Your task to perform on an android device: check out phone information Image 0: 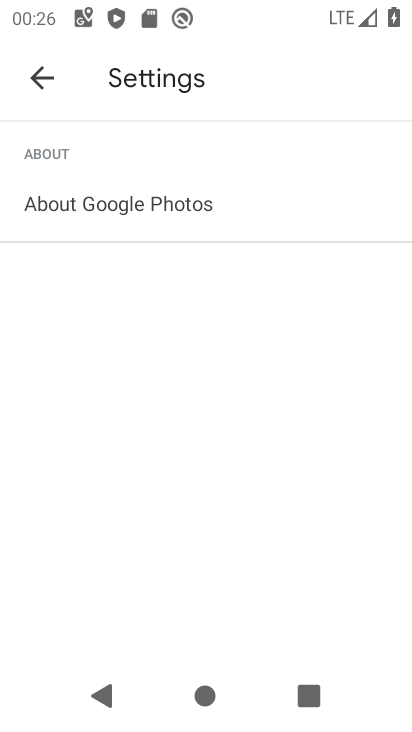
Step 0: press home button
Your task to perform on an android device: check out phone information Image 1: 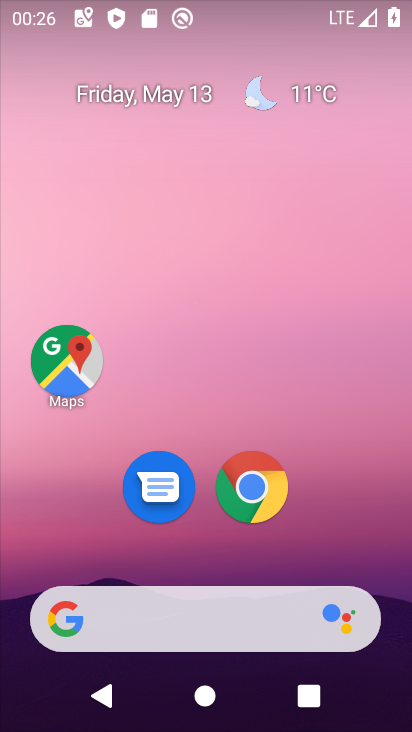
Step 1: drag from (203, 526) to (156, 73)
Your task to perform on an android device: check out phone information Image 2: 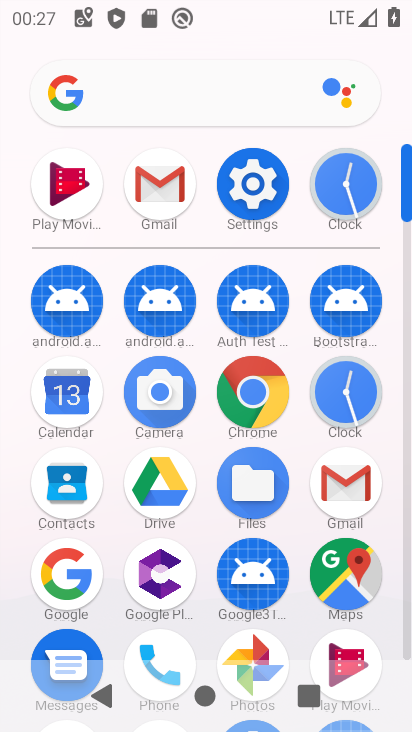
Step 2: click (280, 181)
Your task to perform on an android device: check out phone information Image 3: 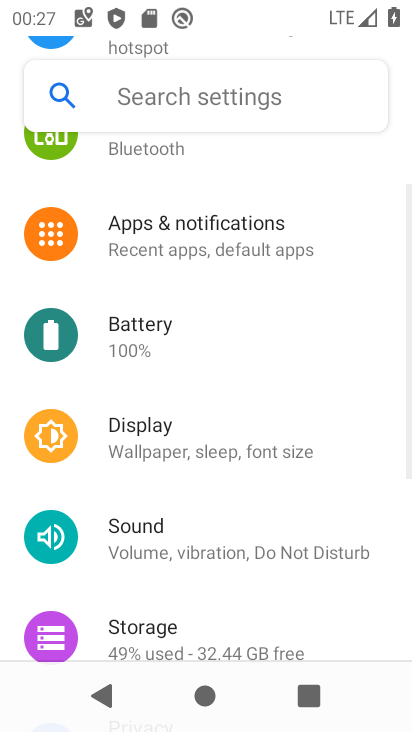
Step 3: drag from (134, 583) to (144, 152)
Your task to perform on an android device: check out phone information Image 4: 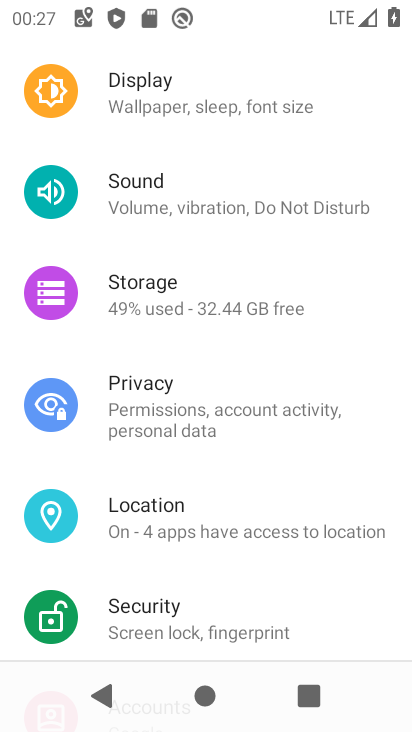
Step 4: drag from (244, 550) to (274, 29)
Your task to perform on an android device: check out phone information Image 5: 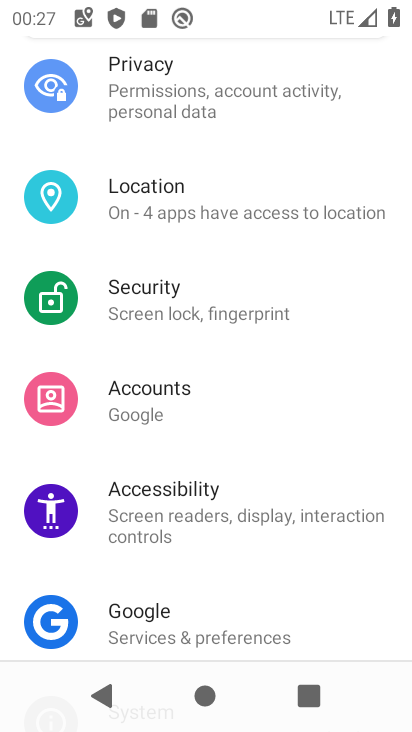
Step 5: drag from (215, 564) to (209, 83)
Your task to perform on an android device: check out phone information Image 6: 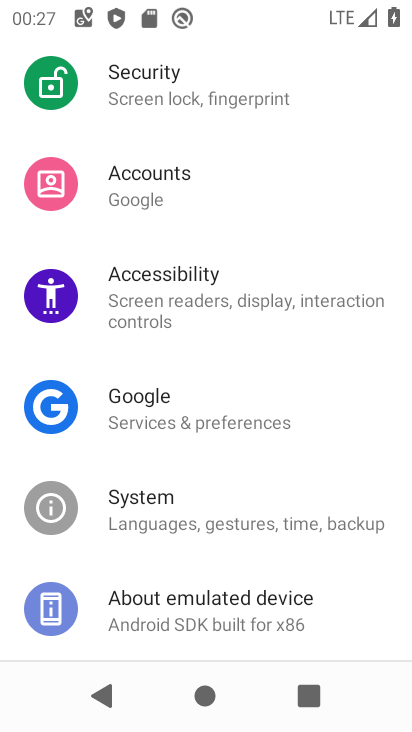
Step 6: drag from (176, 583) to (171, 346)
Your task to perform on an android device: check out phone information Image 7: 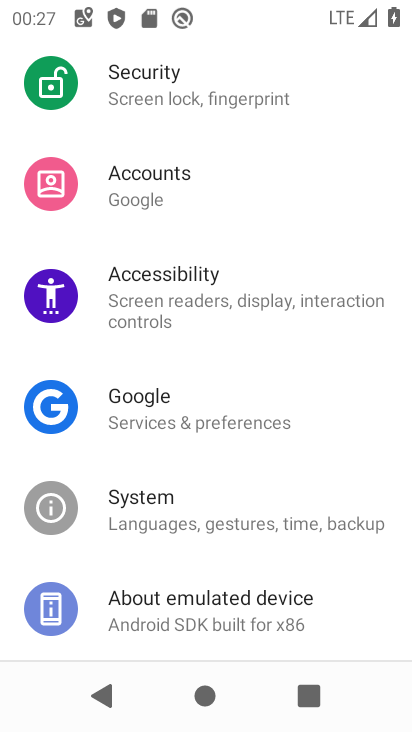
Step 7: click (221, 631)
Your task to perform on an android device: check out phone information Image 8: 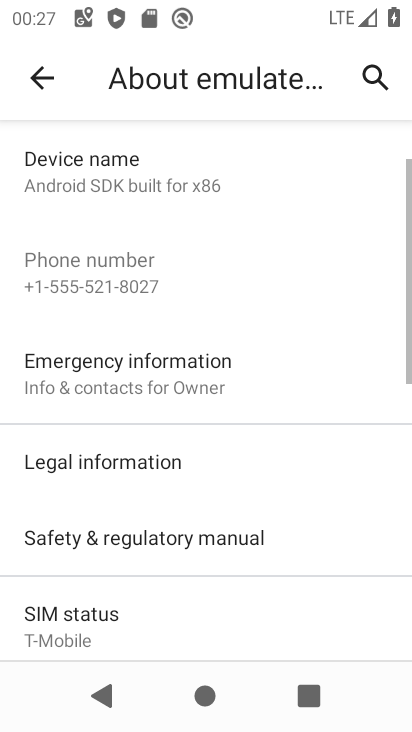
Step 8: task complete